Your task to perform on an android device: change the upload size in google photos Image 0: 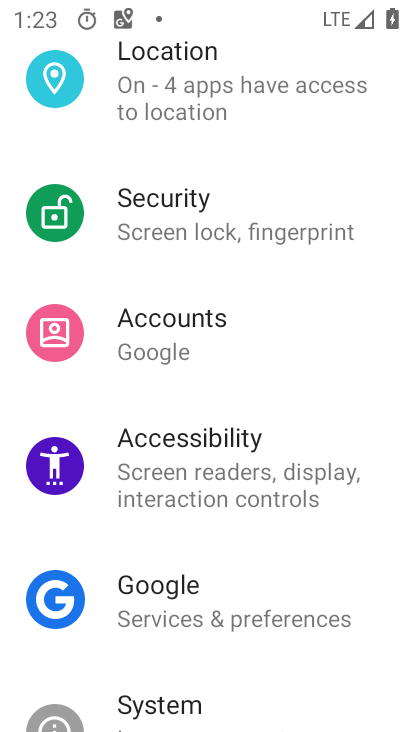
Step 0: press home button
Your task to perform on an android device: change the upload size in google photos Image 1: 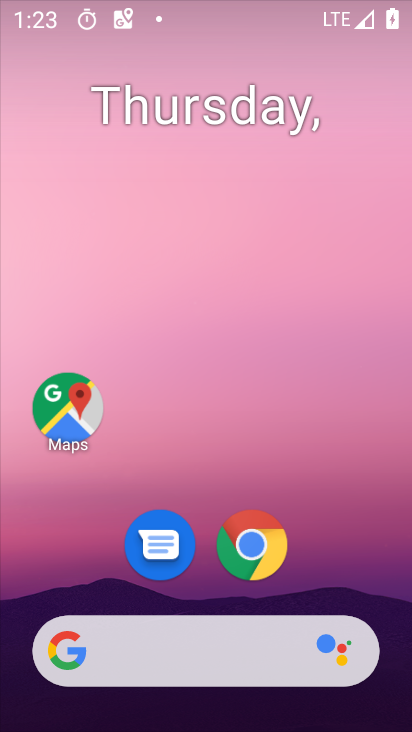
Step 1: drag from (327, 550) to (309, 2)
Your task to perform on an android device: change the upload size in google photos Image 2: 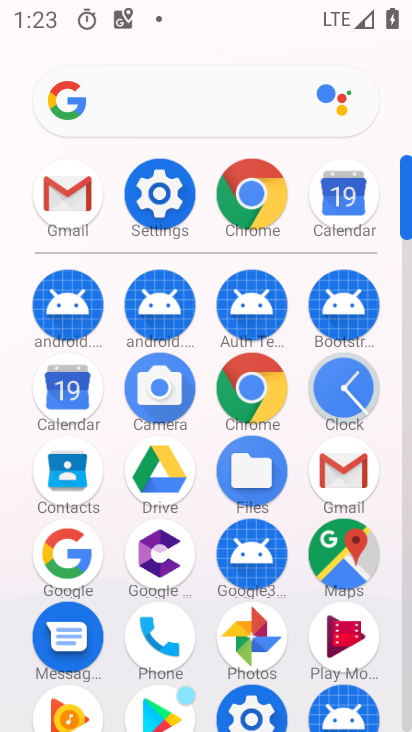
Step 2: click (245, 635)
Your task to perform on an android device: change the upload size in google photos Image 3: 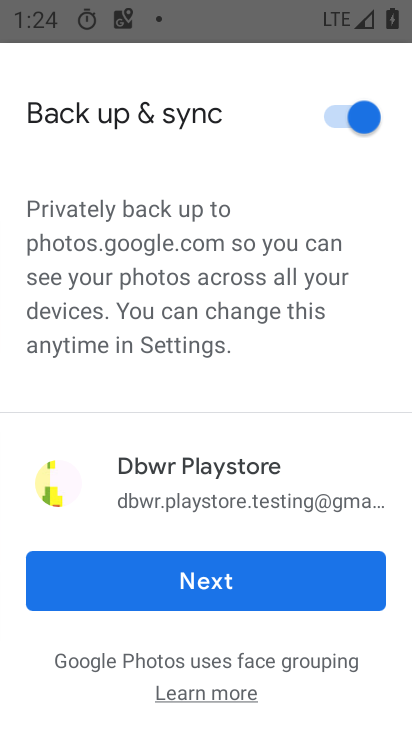
Step 3: click (287, 575)
Your task to perform on an android device: change the upload size in google photos Image 4: 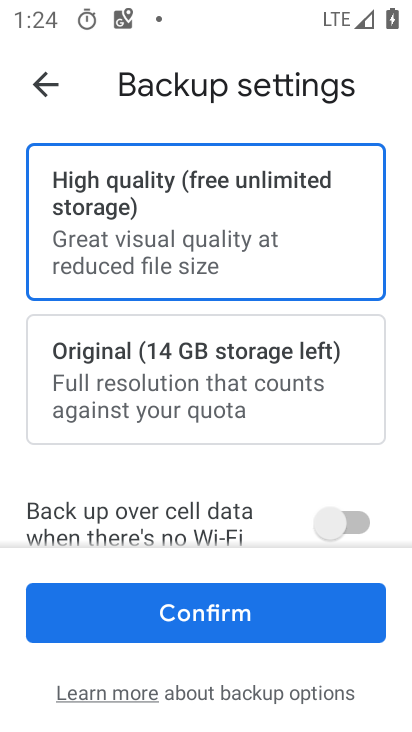
Step 4: drag from (260, 269) to (247, 513)
Your task to perform on an android device: change the upload size in google photos Image 5: 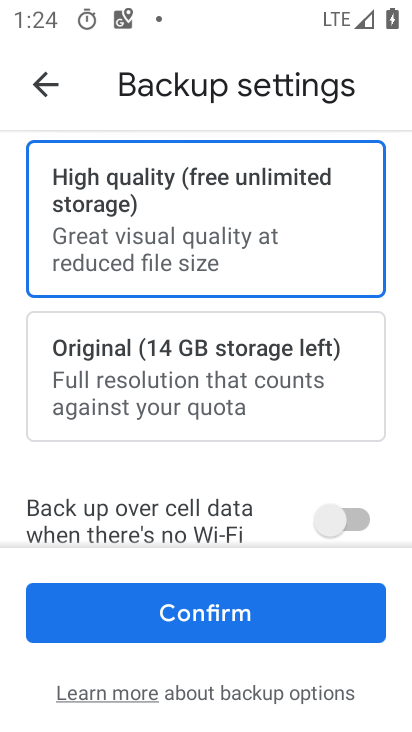
Step 5: click (211, 413)
Your task to perform on an android device: change the upload size in google photos Image 6: 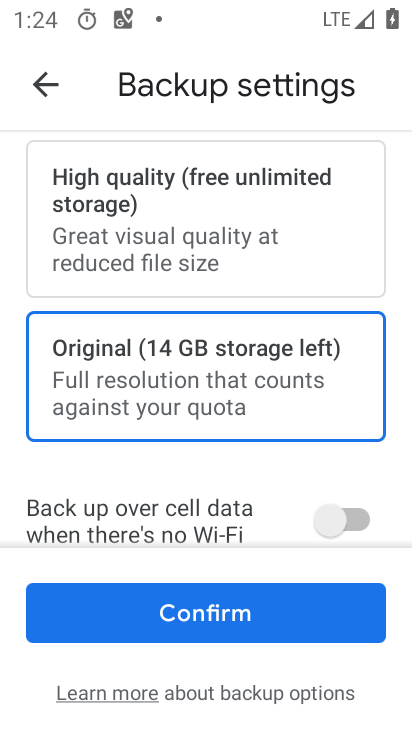
Step 6: task complete